Your task to perform on an android device: Search for "macbook pro 15 inch" on target, select the first entry, add it to the cart, then select checkout. Image 0: 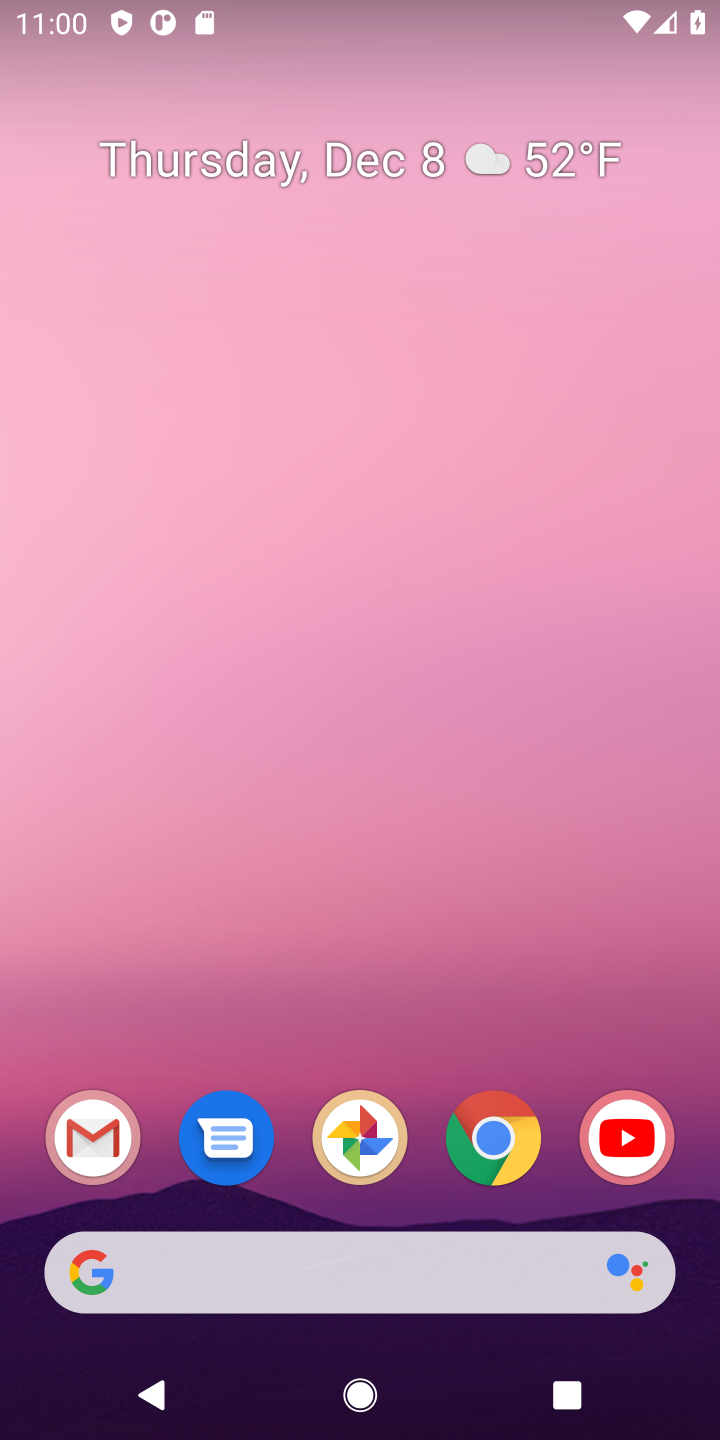
Step 0: click (478, 1130)
Your task to perform on an android device: Search for "macbook pro 15 inch" on target, select the first entry, add it to the cart, then select checkout. Image 1: 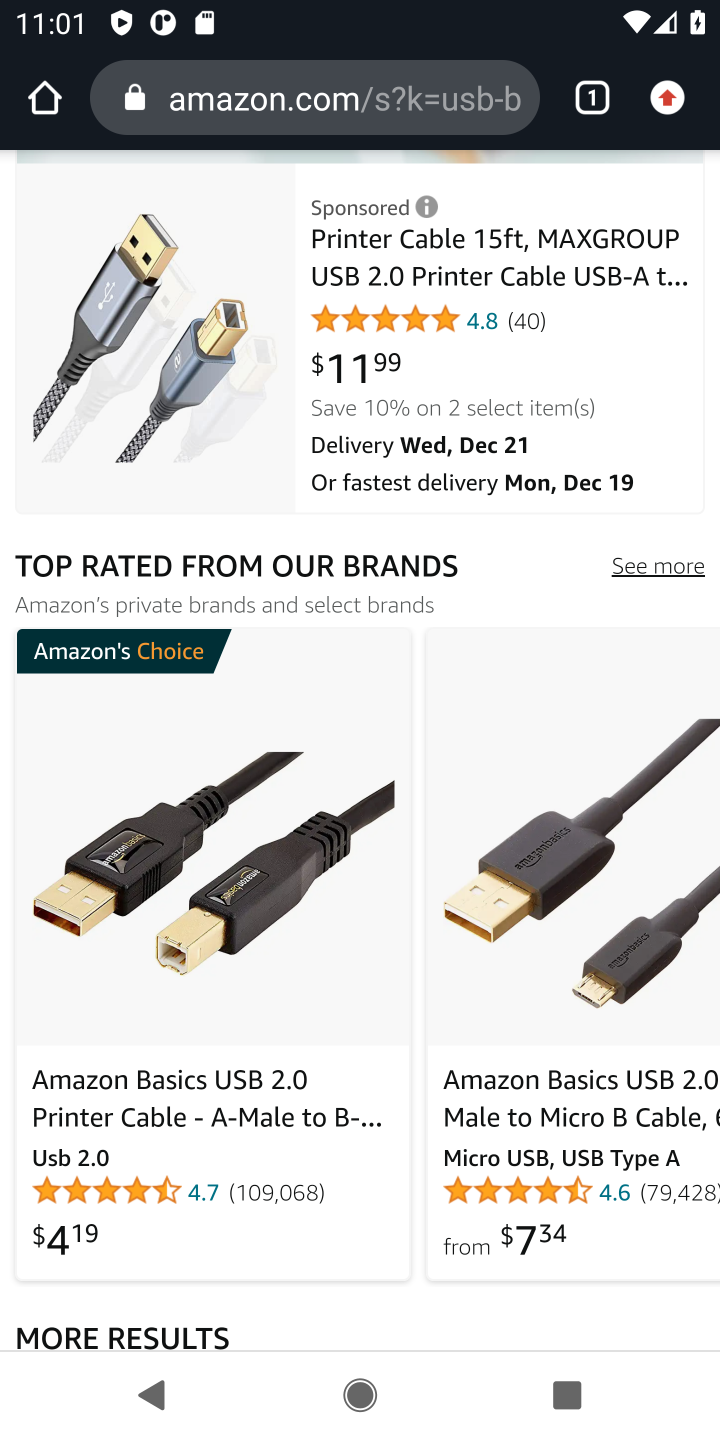
Step 1: click (388, 107)
Your task to perform on an android device: Search for "macbook pro 15 inch" on target, select the first entry, add it to the cart, then select checkout. Image 2: 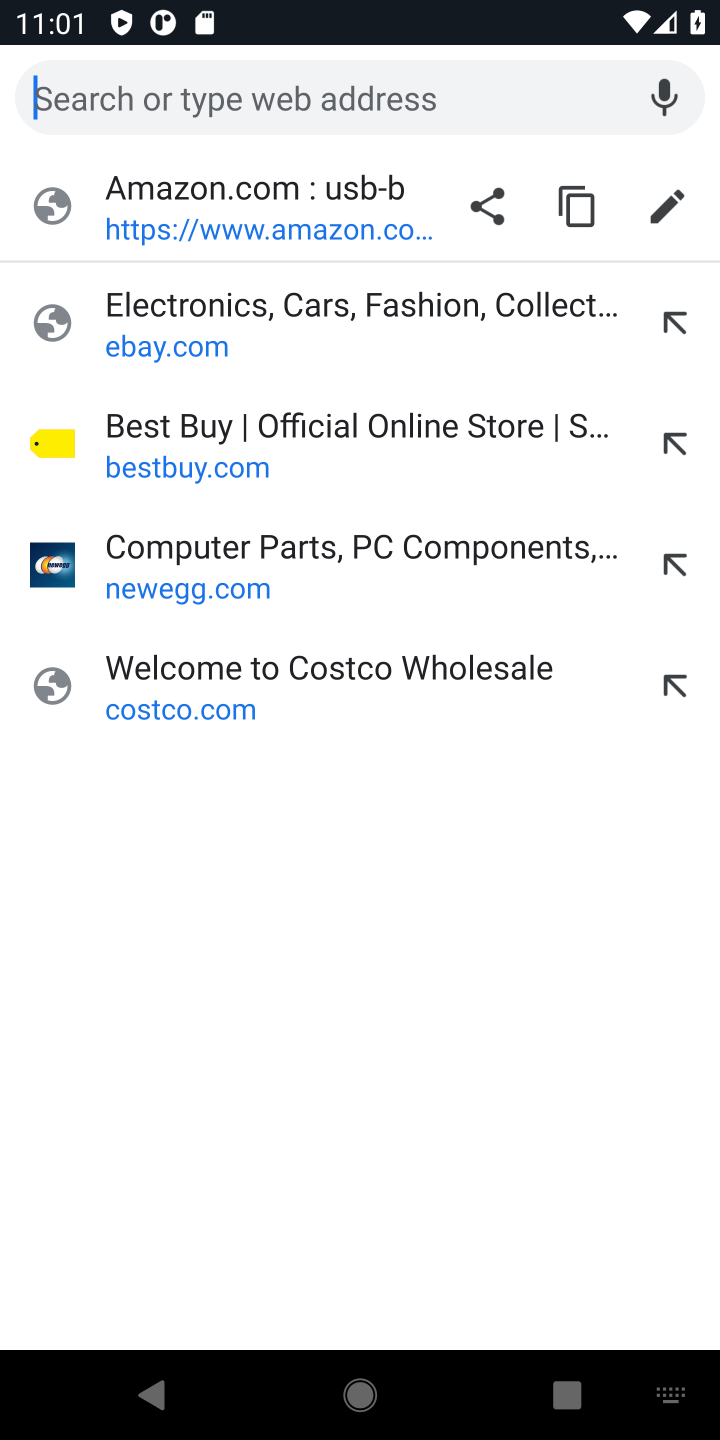
Step 2: type "target"
Your task to perform on an android device: Search for "macbook pro 15 inch" on target, select the first entry, add it to the cart, then select checkout. Image 3: 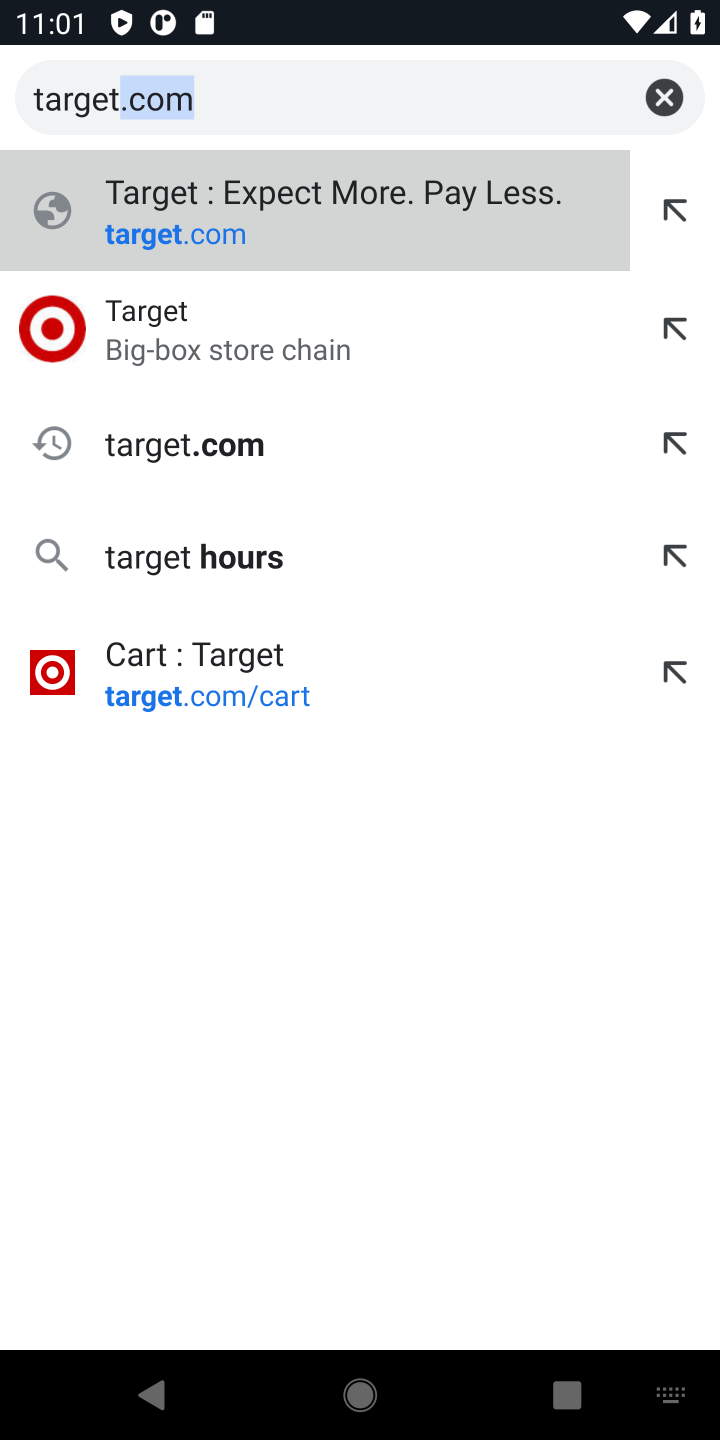
Step 3: press enter
Your task to perform on an android device: Search for "macbook pro 15 inch" on target, select the first entry, add it to the cart, then select checkout. Image 4: 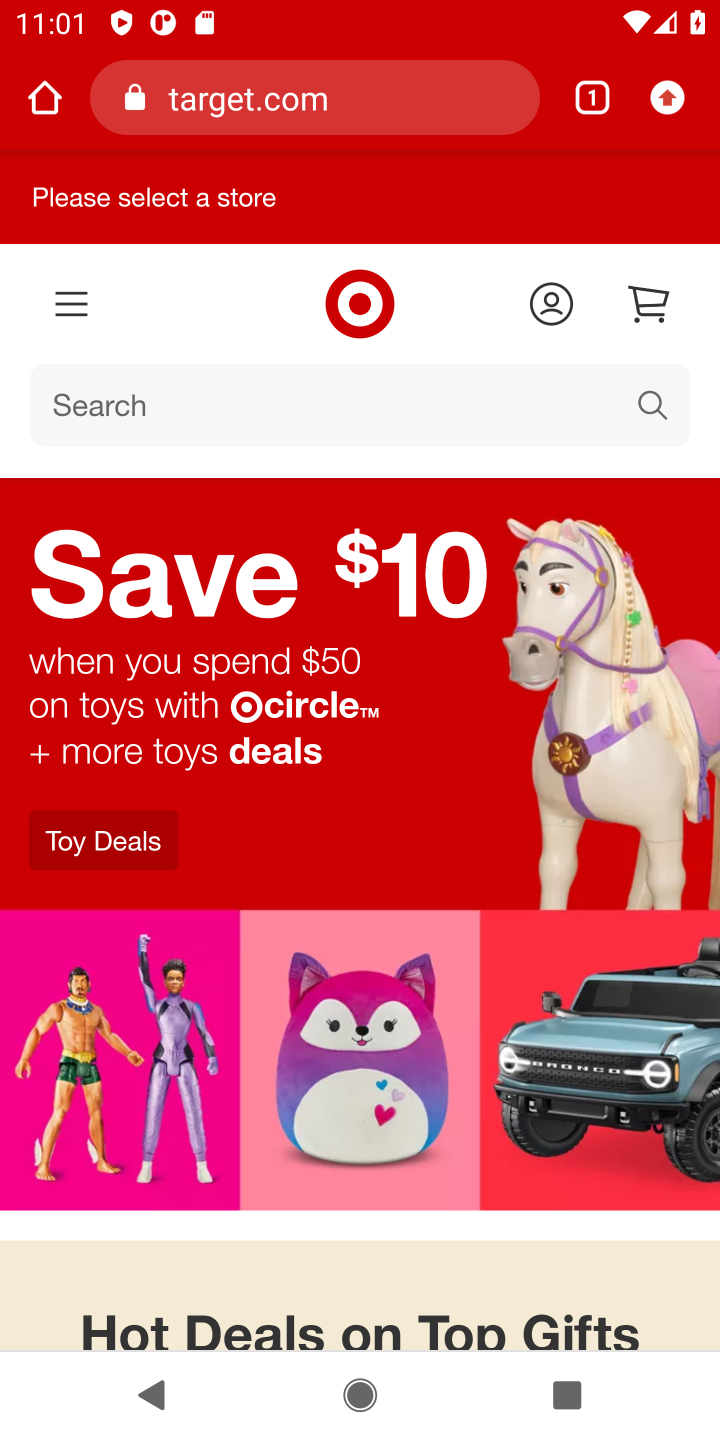
Step 4: click (658, 397)
Your task to perform on an android device: Search for "macbook pro 15 inch" on target, select the first entry, add it to the cart, then select checkout. Image 5: 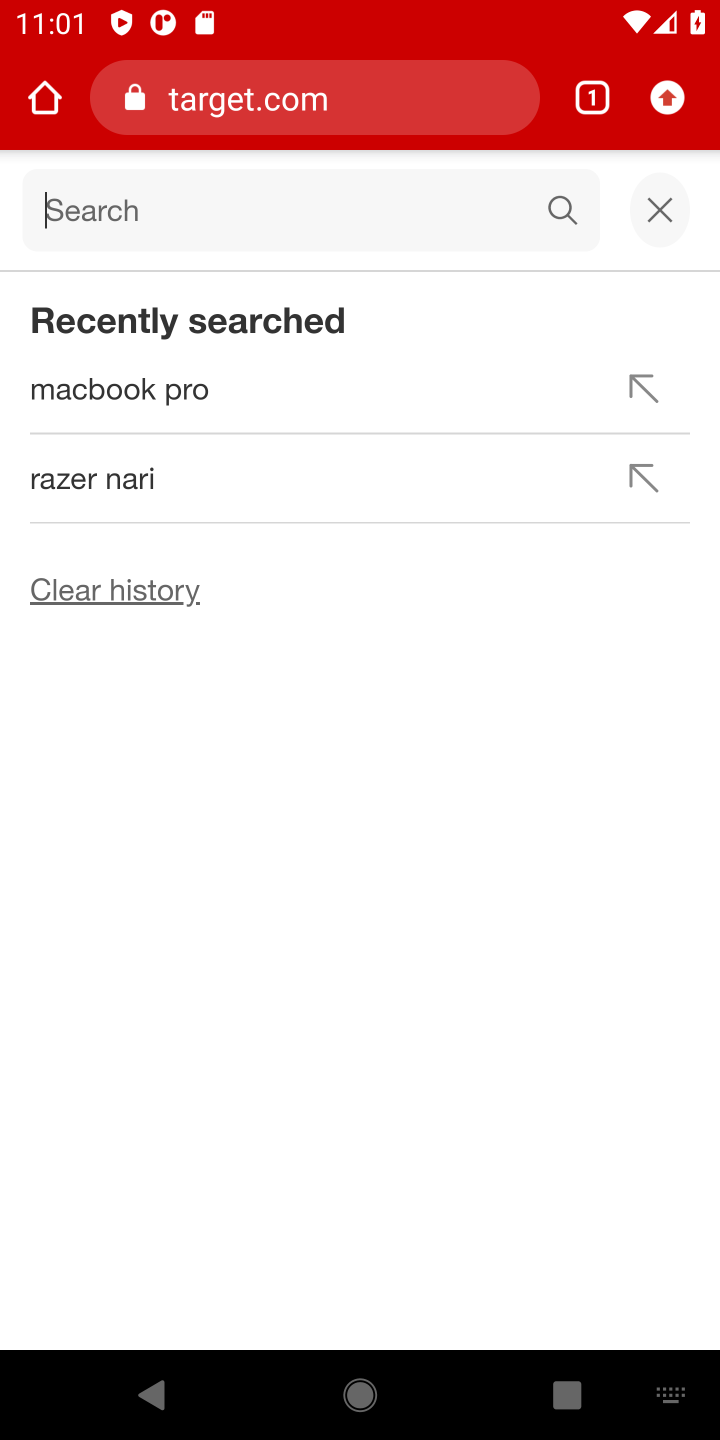
Step 5: type "macbook pro 15 inch"
Your task to perform on an android device: Search for "macbook pro 15 inch" on target, select the first entry, add it to the cart, then select checkout. Image 6: 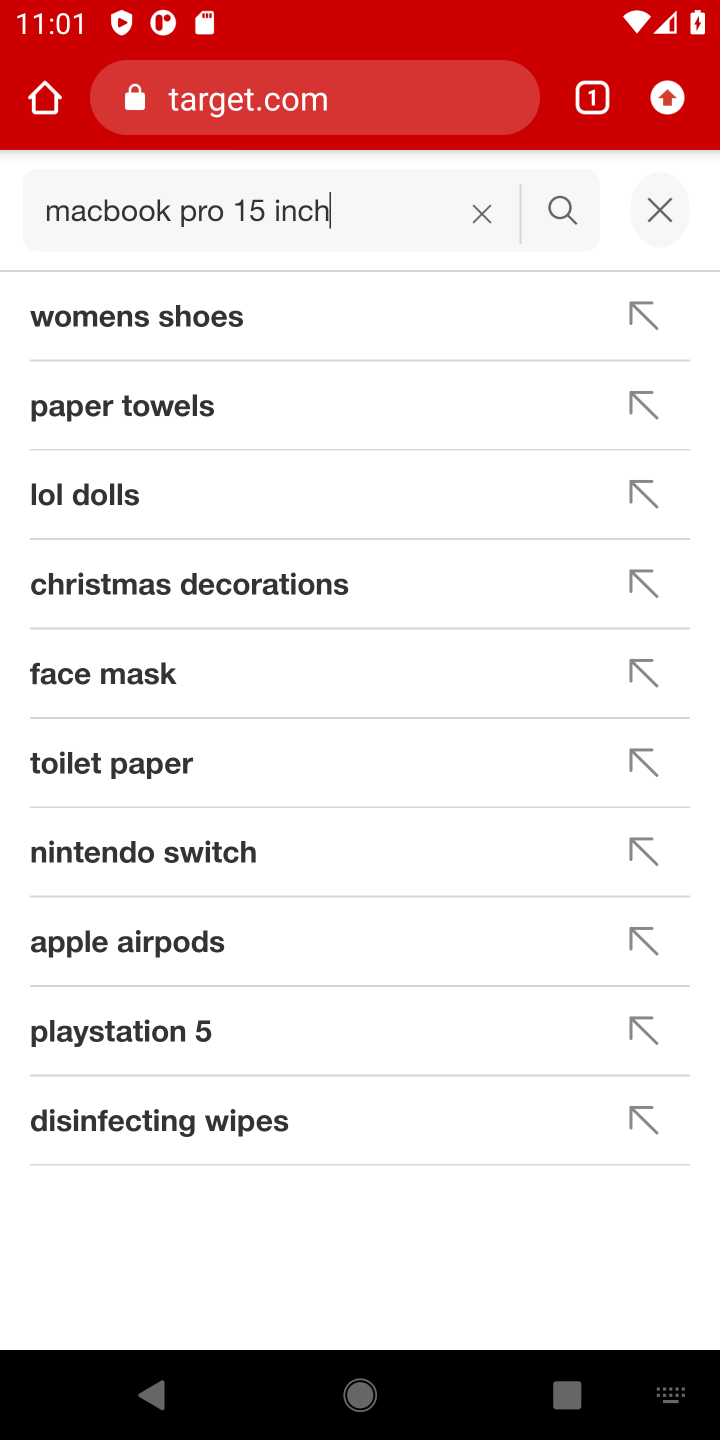
Step 6: press enter
Your task to perform on an android device: Search for "macbook pro 15 inch" on target, select the first entry, add it to the cart, then select checkout. Image 7: 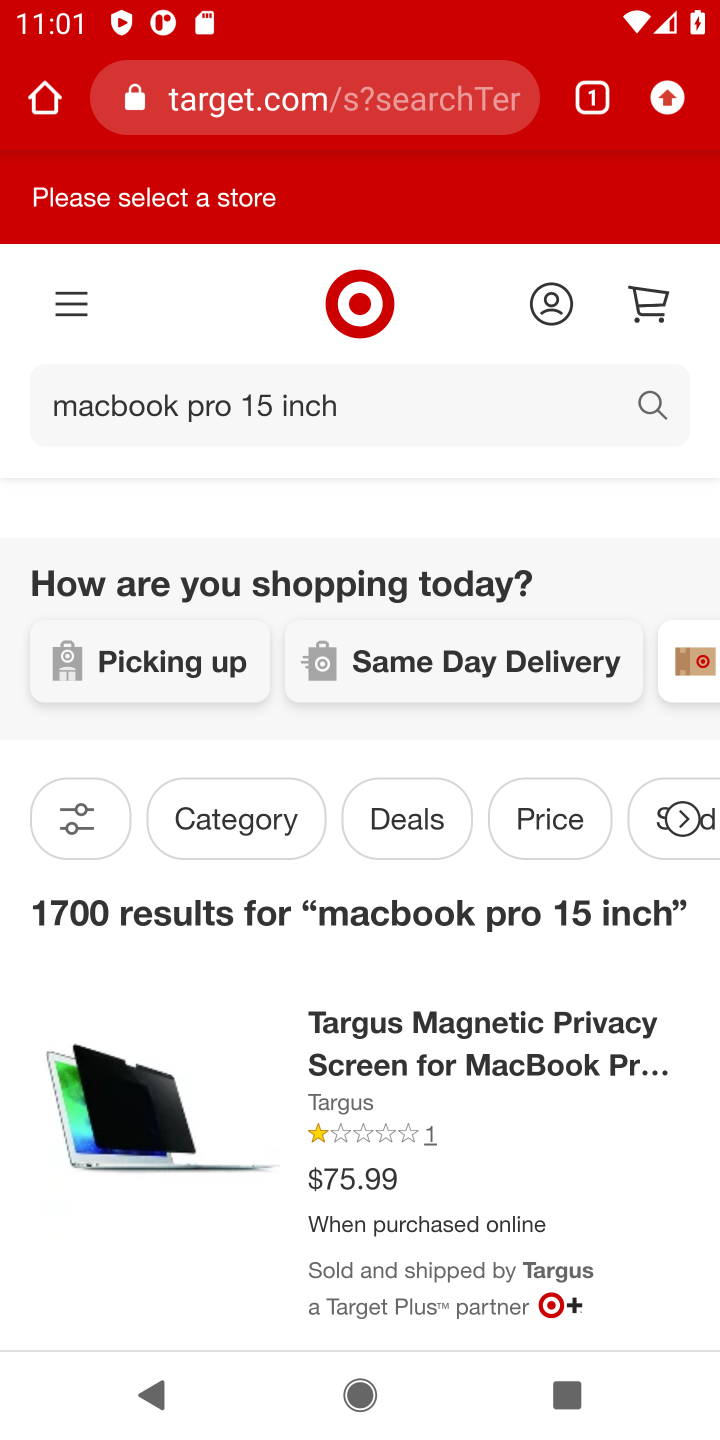
Step 7: task complete